Your task to perform on an android device: change the clock style Image 0: 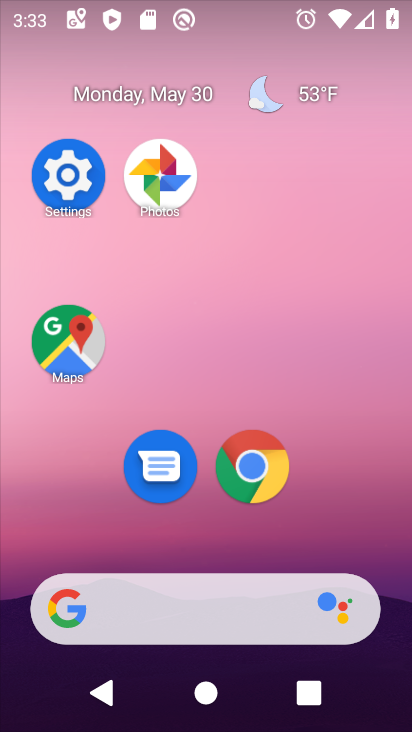
Step 0: drag from (324, 494) to (309, 69)
Your task to perform on an android device: change the clock style Image 1: 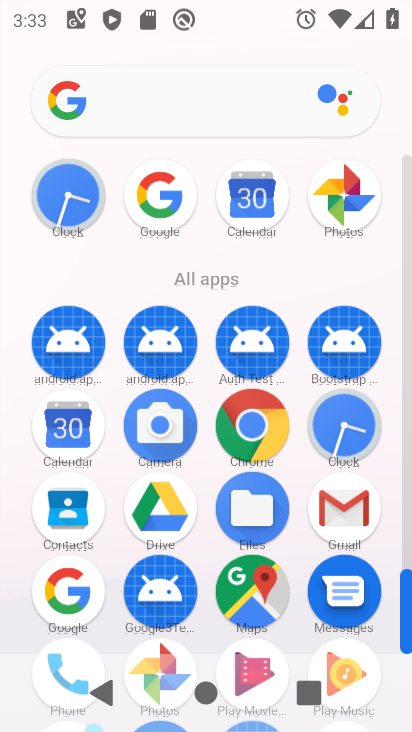
Step 1: drag from (191, 520) to (221, 240)
Your task to perform on an android device: change the clock style Image 2: 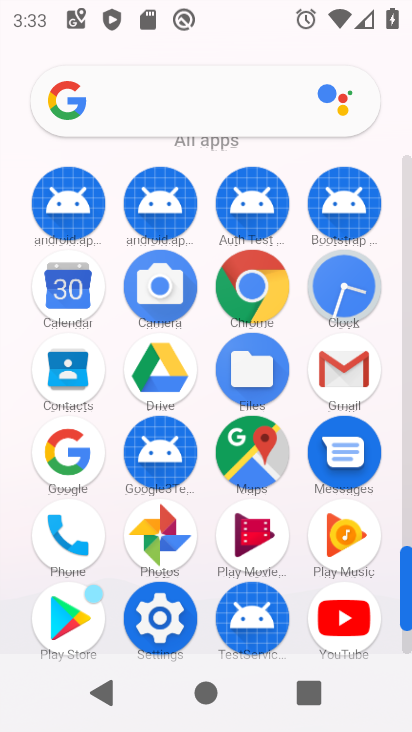
Step 2: click (334, 281)
Your task to perform on an android device: change the clock style Image 3: 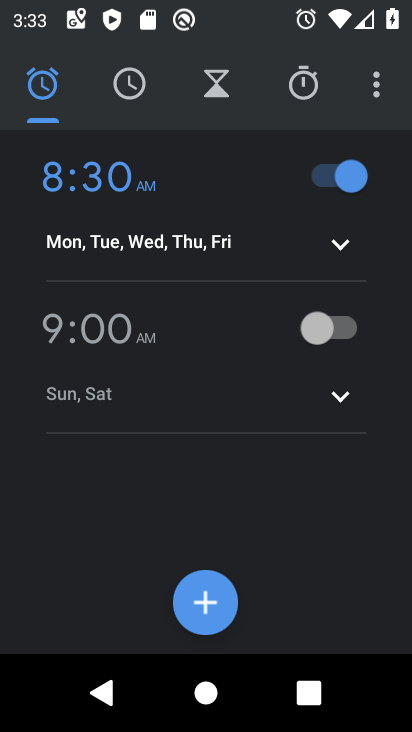
Step 3: click (377, 106)
Your task to perform on an android device: change the clock style Image 4: 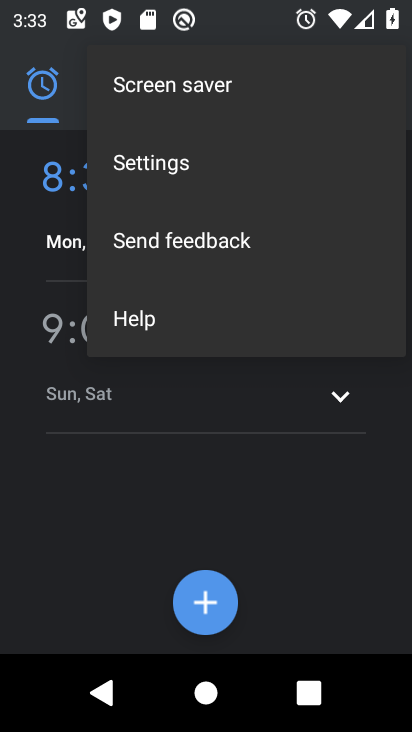
Step 4: click (231, 143)
Your task to perform on an android device: change the clock style Image 5: 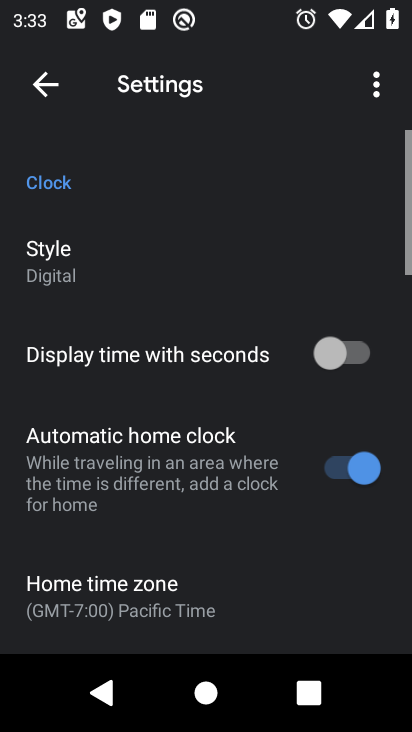
Step 5: click (145, 254)
Your task to perform on an android device: change the clock style Image 6: 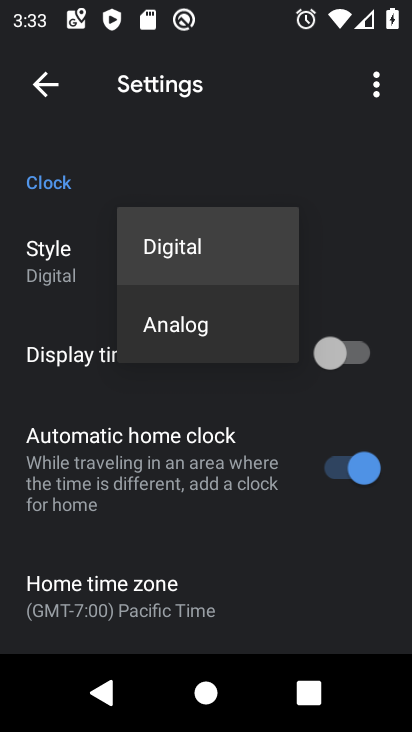
Step 6: click (195, 341)
Your task to perform on an android device: change the clock style Image 7: 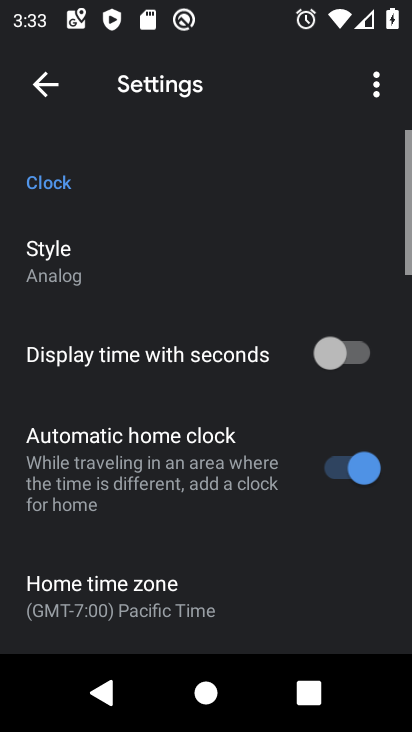
Step 7: task complete